Your task to perform on an android device: turn on wifi Image 0: 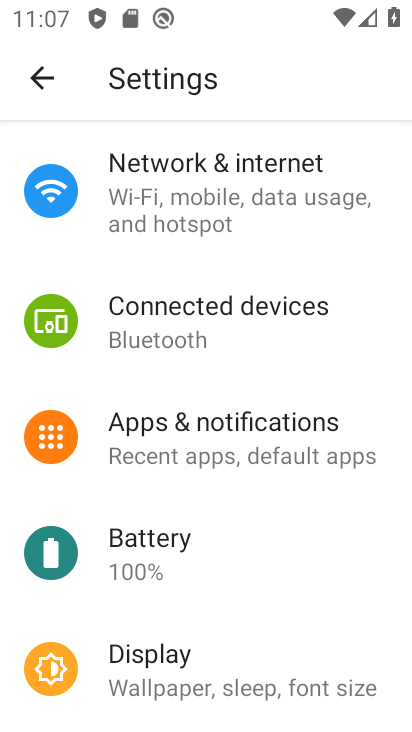
Step 0: click (159, 175)
Your task to perform on an android device: turn on wifi Image 1: 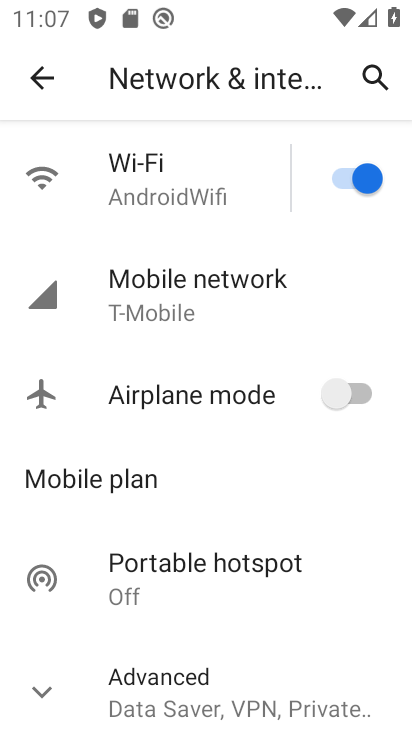
Step 1: task complete